Your task to perform on an android device: Do I have any events today? Image 0: 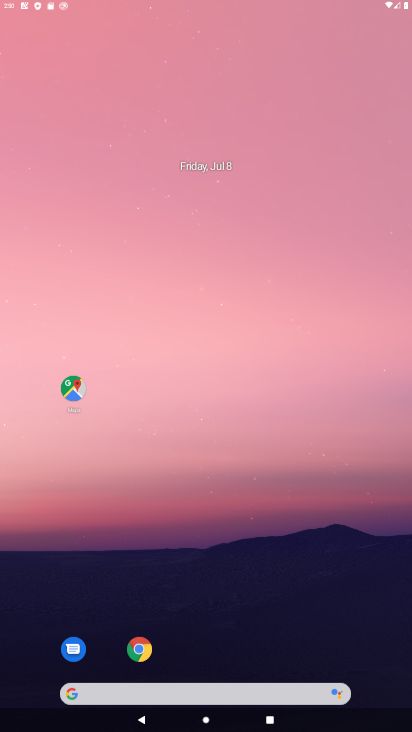
Step 0: click (169, 206)
Your task to perform on an android device: Do I have any events today? Image 1: 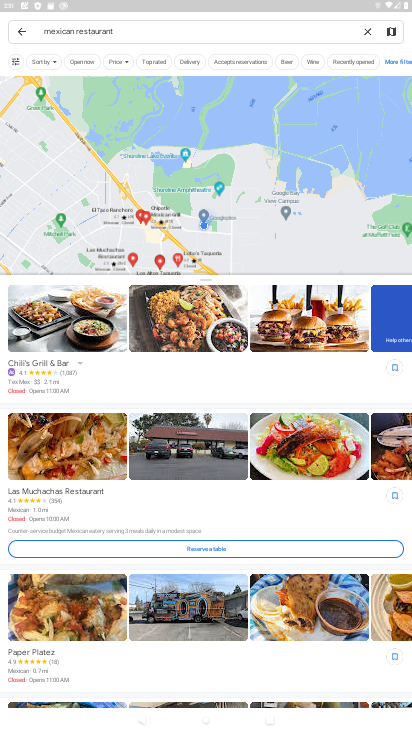
Step 1: press home button
Your task to perform on an android device: Do I have any events today? Image 2: 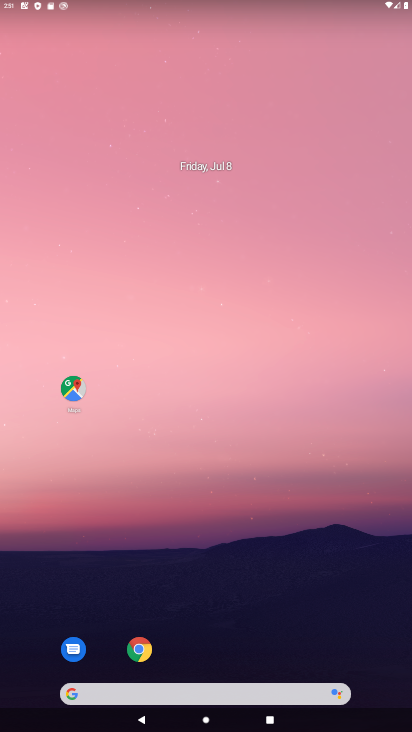
Step 2: drag from (189, 672) to (114, 0)
Your task to perform on an android device: Do I have any events today? Image 3: 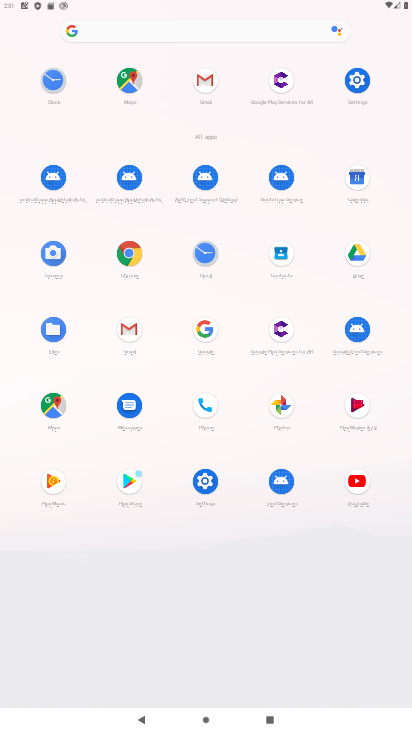
Step 3: click (348, 183)
Your task to perform on an android device: Do I have any events today? Image 4: 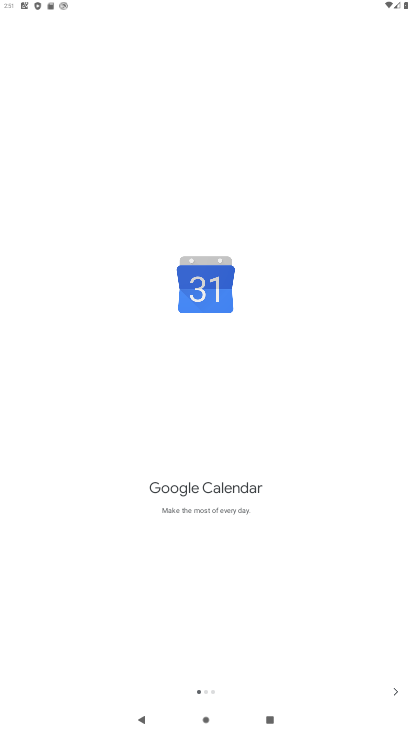
Step 4: click (387, 688)
Your task to perform on an android device: Do I have any events today? Image 5: 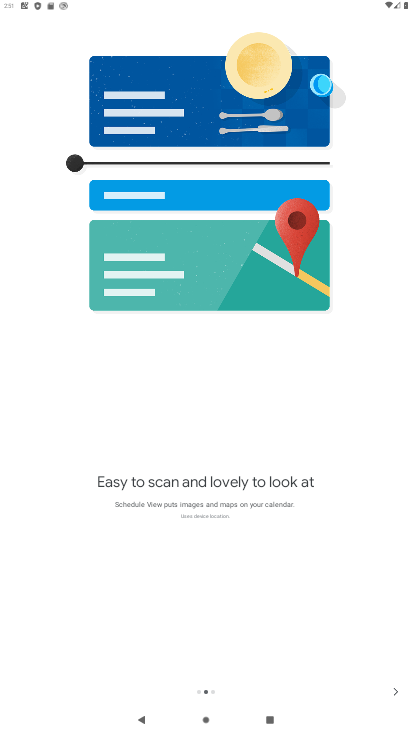
Step 5: click (395, 685)
Your task to perform on an android device: Do I have any events today? Image 6: 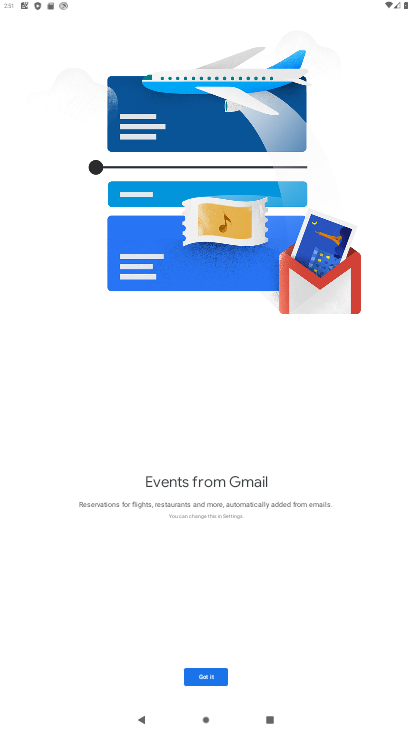
Step 6: click (206, 672)
Your task to perform on an android device: Do I have any events today? Image 7: 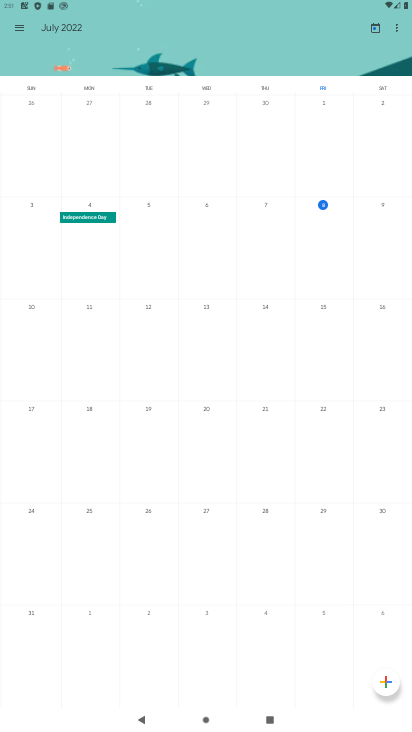
Step 7: click (324, 200)
Your task to perform on an android device: Do I have any events today? Image 8: 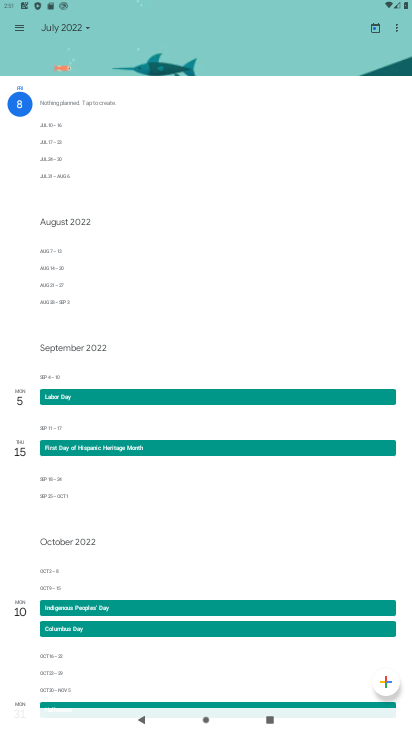
Step 8: task complete